Your task to perform on an android device: change text size in settings app Image 0: 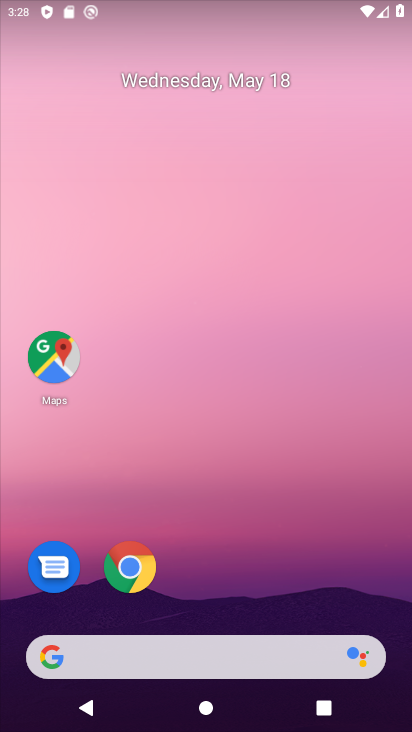
Step 0: drag from (253, 598) to (308, 46)
Your task to perform on an android device: change text size in settings app Image 1: 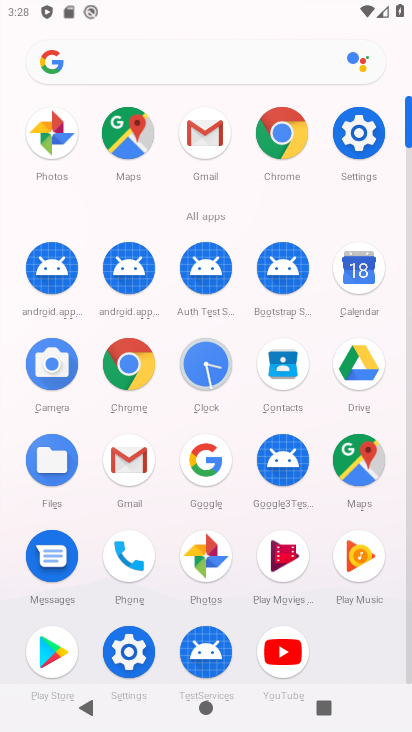
Step 1: click (127, 644)
Your task to perform on an android device: change text size in settings app Image 2: 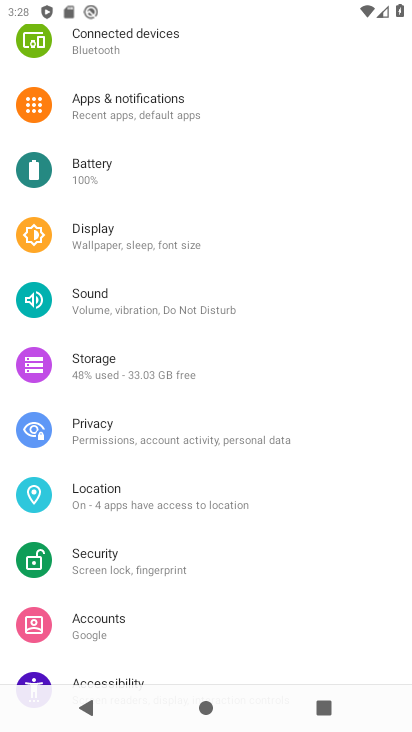
Step 2: click (113, 224)
Your task to perform on an android device: change text size in settings app Image 3: 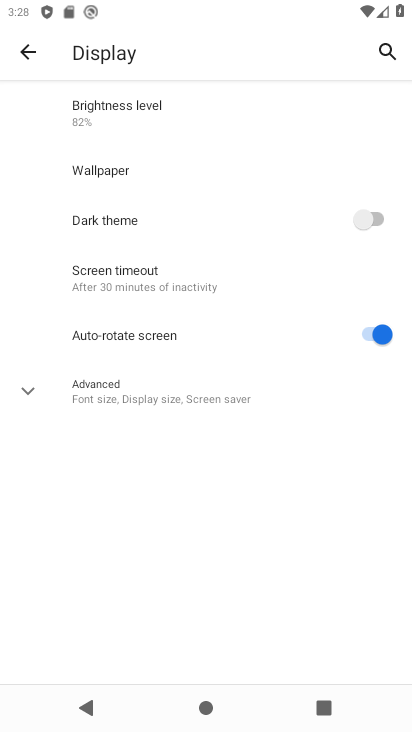
Step 3: click (147, 395)
Your task to perform on an android device: change text size in settings app Image 4: 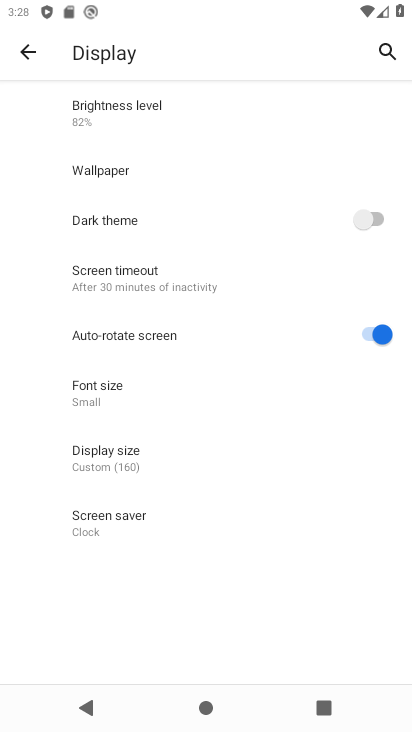
Step 4: click (92, 389)
Your task to perform on an android device: change text size in settings app Image 5: 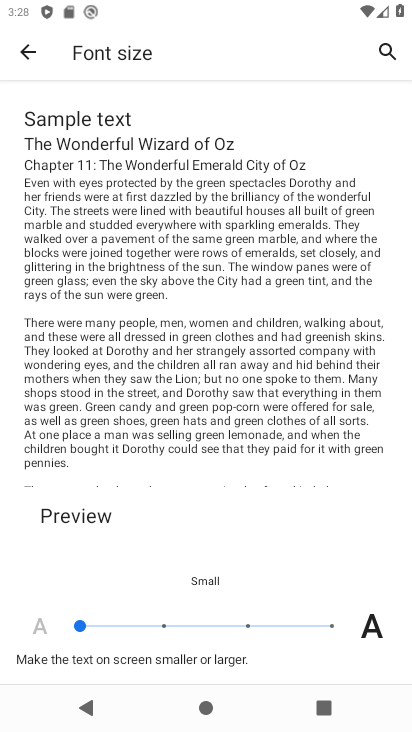
Step 5: click (129, 626)
Your task to perform on an android device: change text size in settings app Image 6: 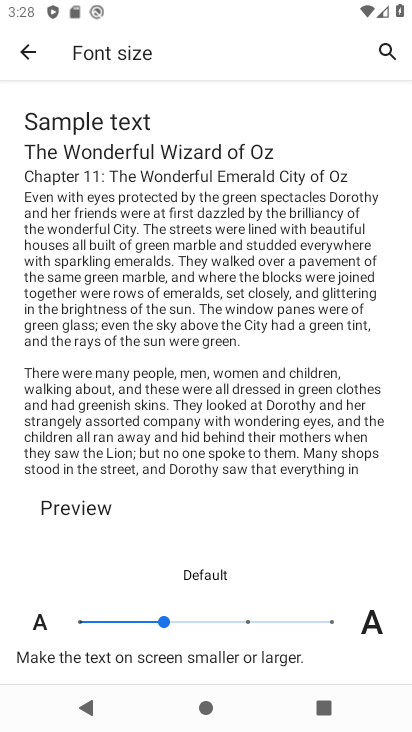
Step 6: task complete